Your task to perform on an android device: clear history in the chrome app Image 0: 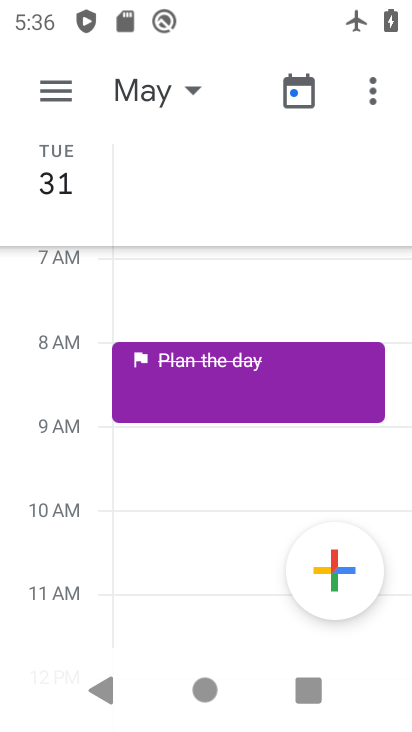
Step 0: press home button
Your task to perform on an android device: clear history in the chrome app Image 1: 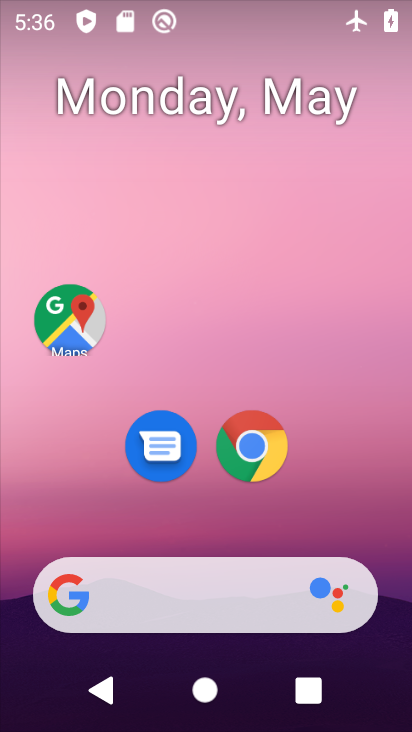
Step 1: click (254, 443)
Your task to perform on an android device: clear history in the chrome app Image 2: 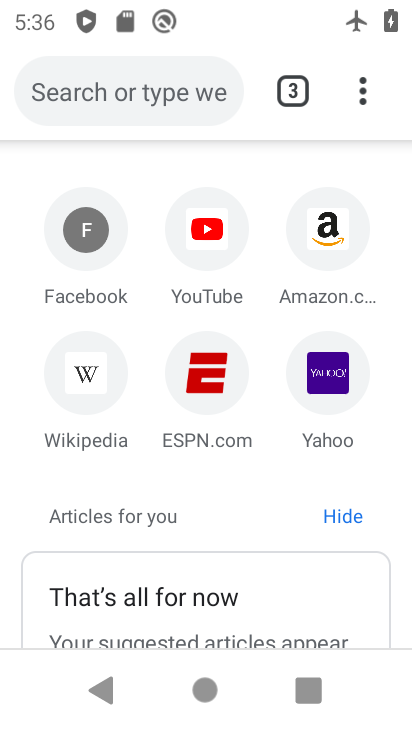
Step 2: click (358, 75)
Your task to perform on an android device: clear history in the chrome app Image 3: 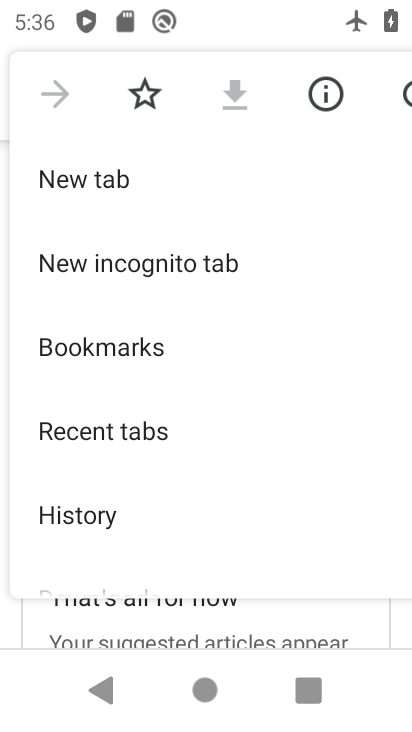
Step 3: click (74, 502)
Your task to perform on an android device: clear history in the chrome app Image 4: 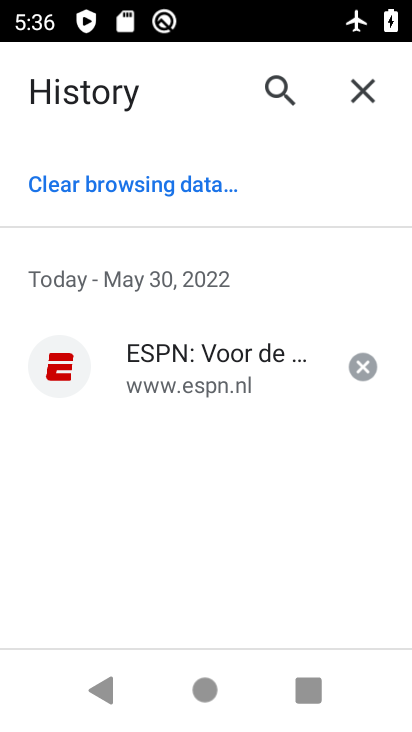
Step 4: click (103, 190)
Your task to perform on an android device: clear history in the chrome app Image 5: 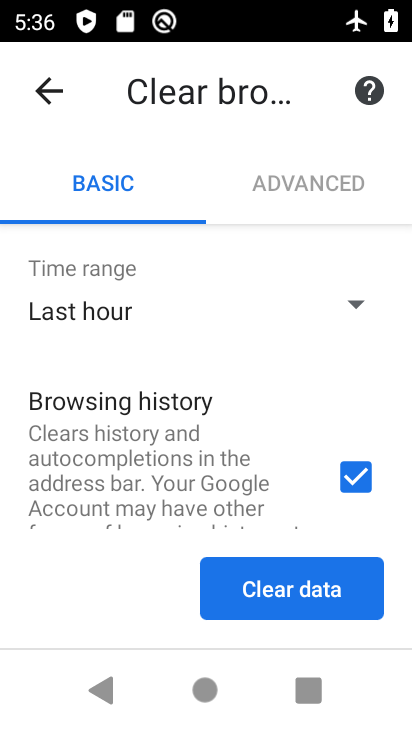
Step 5: click (299, 594)
Your task to perform on an android device: clear history in the chrome app Image 6: 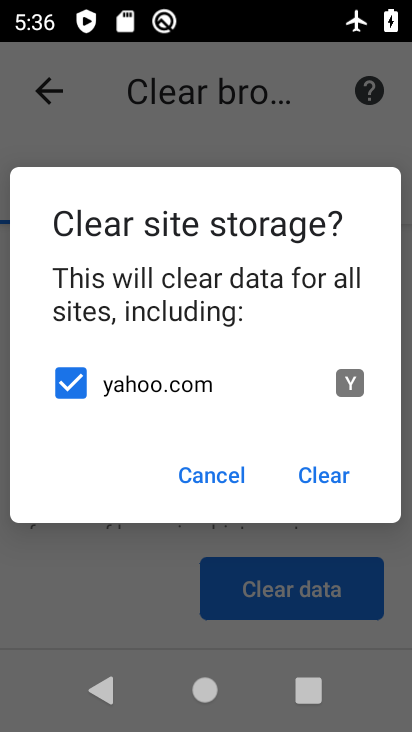
Step 6: click (331, 475)
Your task to perform on an android device: clear history in the chrome app Image 7: 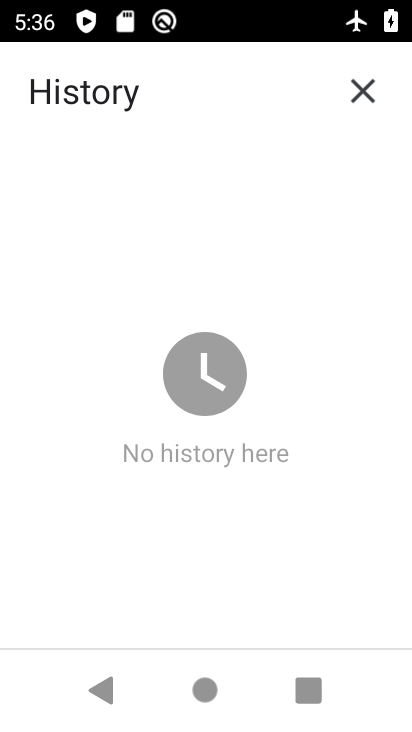
Step 7: task complete